Your task to perform on an android device: Open Chrome and go to settings Image 0: 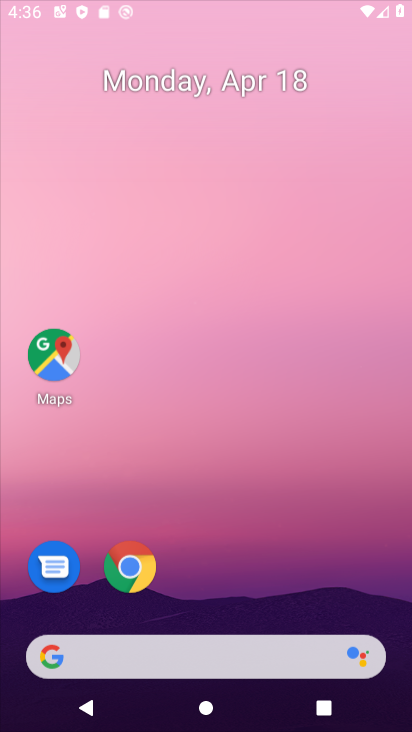
Step 0: press home button
Your task to perform on an android device: Open Chrome and go to settings Image 1: 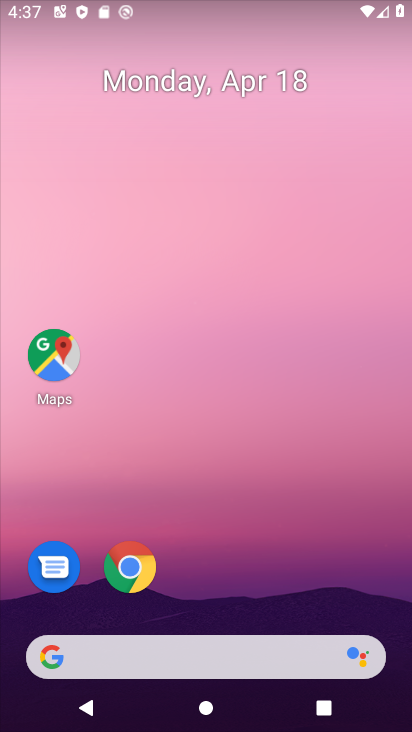
Step 1: click (135, 575)
Your task to perform on an android device: Open Chrome and go to settings Image 2: 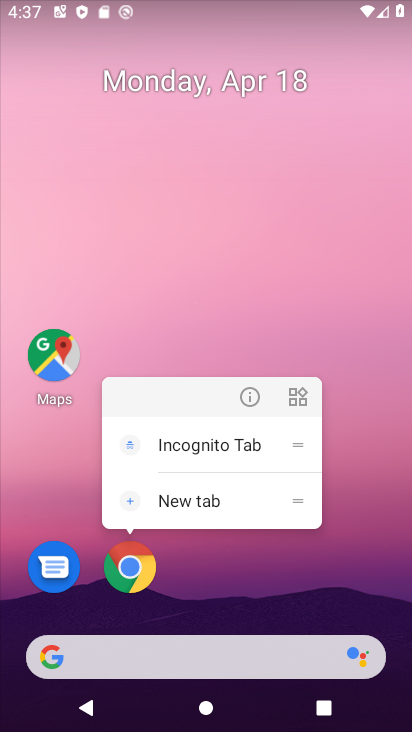
Step 2: click (135, 575)
Your task to perform on an android device: Open Chrome and go to settings Image 3: 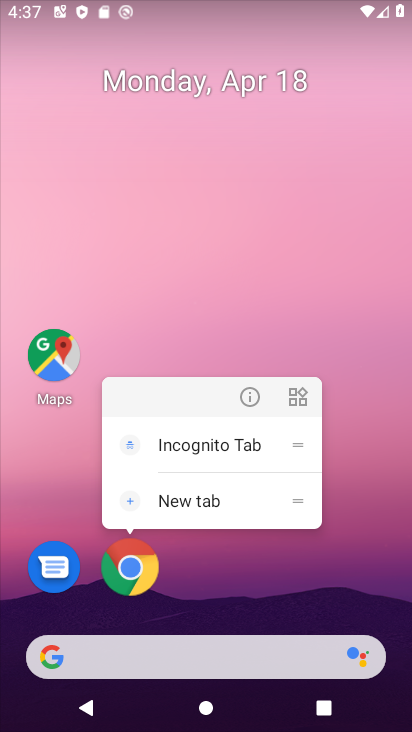
Step 3: click (135, 575)
Your task to perform on an android device: Open Chrome and go to settings Image 4: 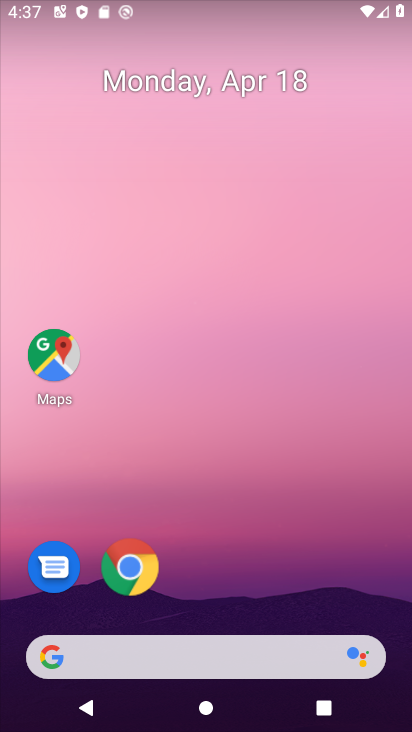
Step 4: click (135, 575)
Your task to perform on an android device: Open Chrome and go to settings Image 5: 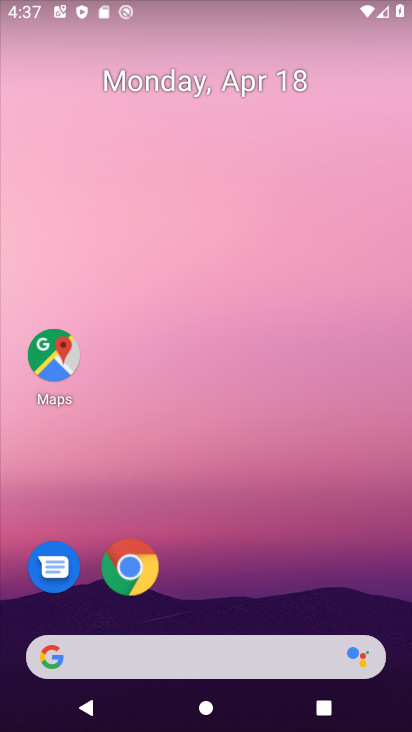
Step 5: click (135, 575)
Your task to perform on an android device: Open Chrome and go to settings Image 6: 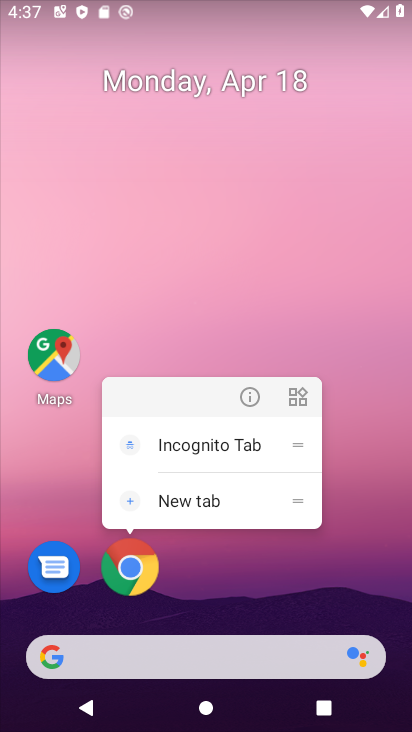
Step 6: click (135, 575)
Your task to perform on an android device: Open Chrome and go to settings Image 7: 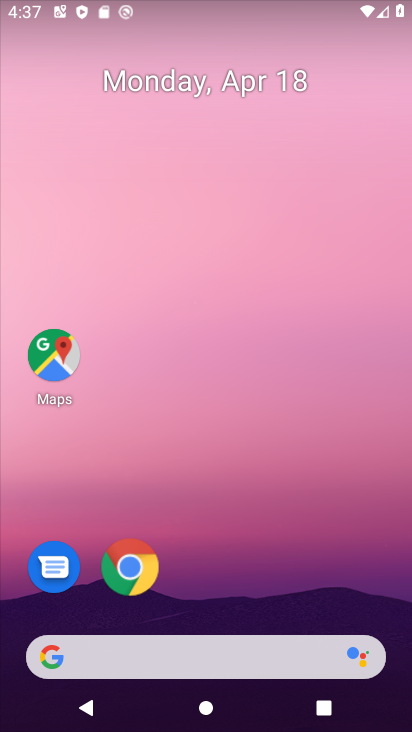
Step 7: click (135, 575)
Your task to perform on an android device: Open Chrome and go to settings Image 8: 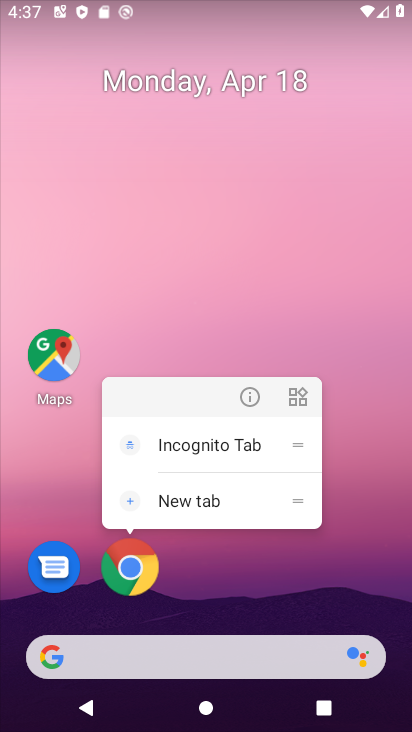
Step 8: click (135, 575)
Your task to perform on an android device: Open Chrome and go to settings Image 9: 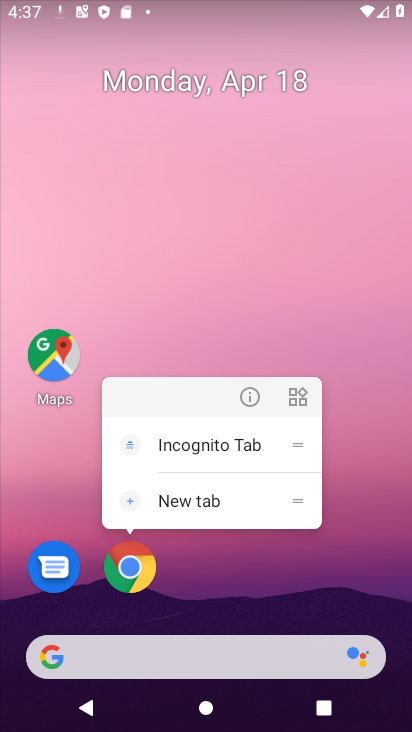
Step 9: click (135, 575)
Your task to perform on an android device: Open Chrome and go to settings Image 10: 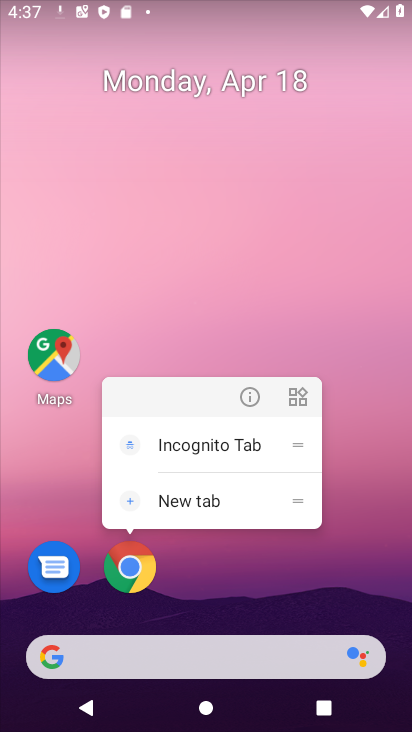
Step 10: click (135, 575)
Your task to perform on an android device: Open Chrome and go to settings Image 11: 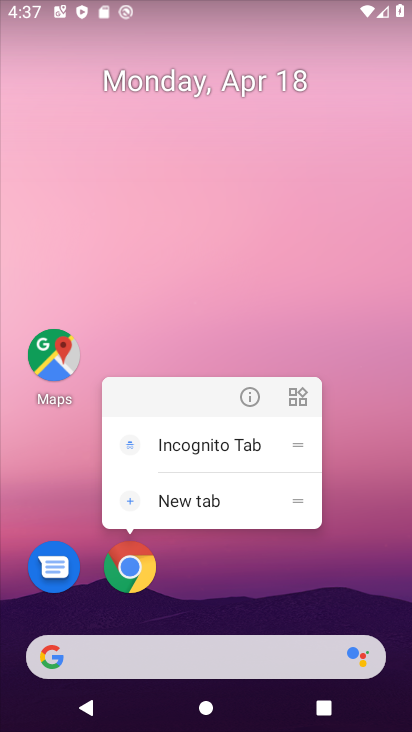
Step 11: click (135, 575)
Your task to perform on an android device: Open Chrome and go to settings Image 12: 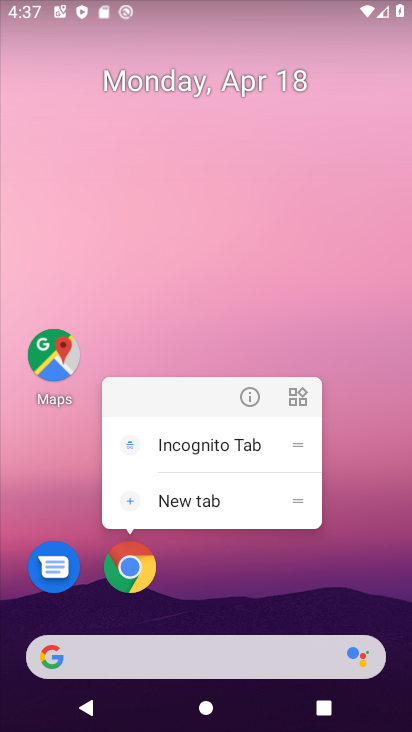
Step 12: click (135, 575)
Your task to perform on an android device: Open Chrome and go to settings Image 13: 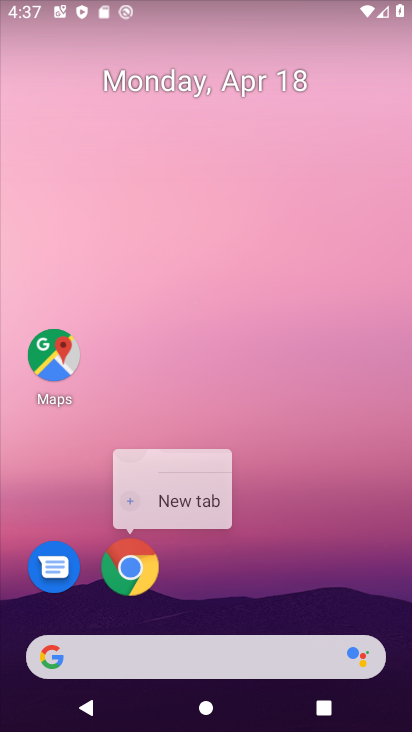
Step 13: click (135, 575)
Your task to perform on an android device: Open Chrome and go to settings Image 14: 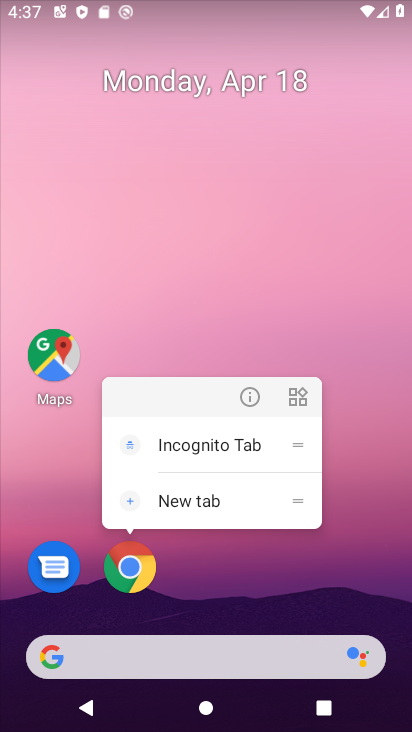
Step 14: click (135, 575)
Your task to perform on an android device: Open Chrome and go to settings Image 15: 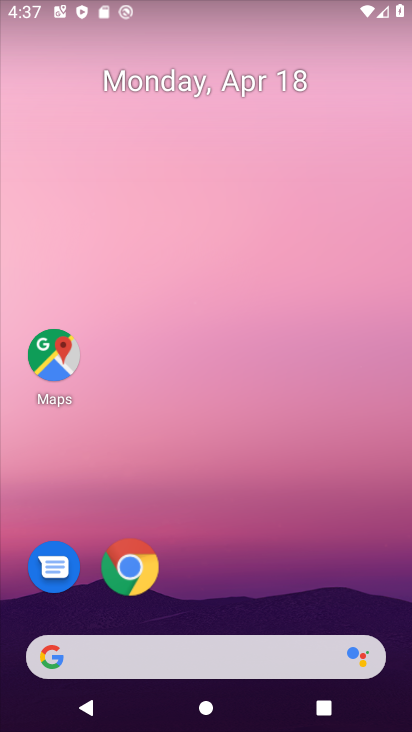
Step 15: click (134, 575)
Your task to perform on an android device: Open Chrome and go to settings Image 16: 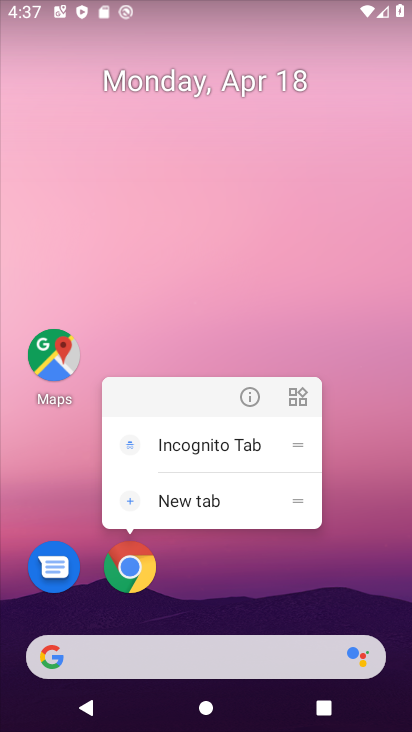
Step 16: click (134, 575)
Your task to perform on an android device: Open Chrome and go to settings Image 17: 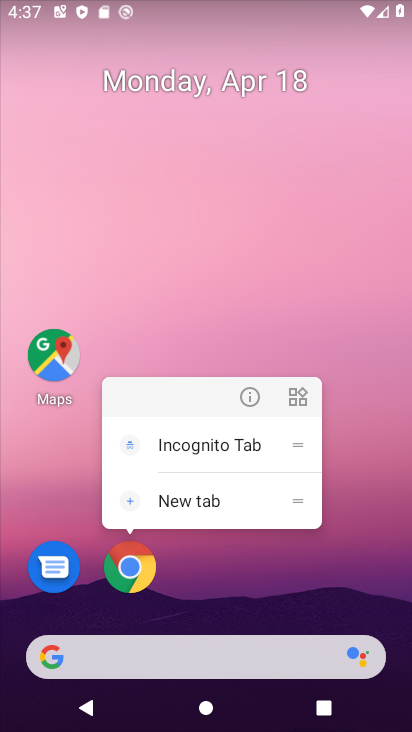
Step 17: click (134, 575)
Your task to perform on an android device: Open Chrome and go to settings Image 18: 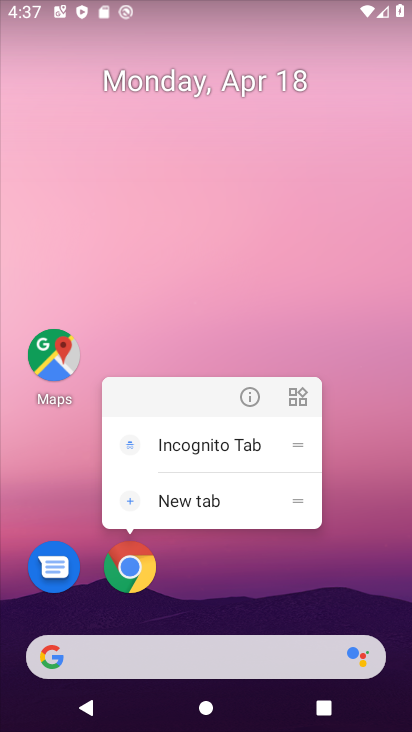
Step 18: click (134, 575)
Your task to perform on an android device: Open Chrome and go to settings Image 19: 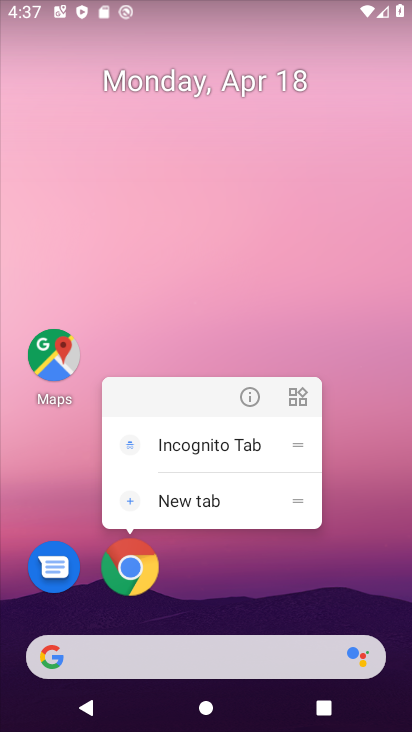
Step 19: click (134, 575)
Your task to perform on an android device: Open Chrome and go to settings Image 20: 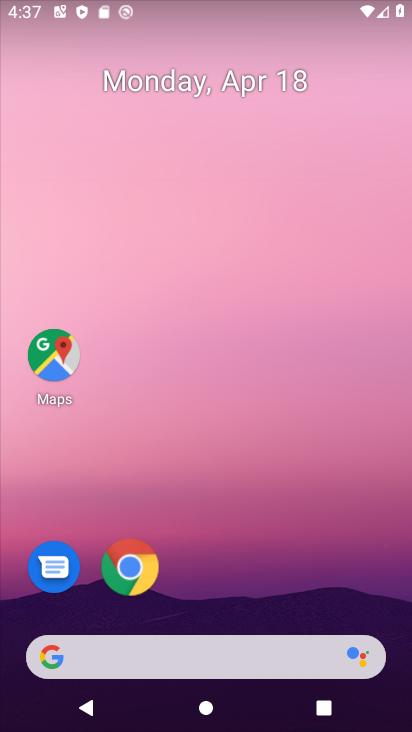
Step 20: click (134, 575)
Your task to perform on an android device: Open Chrome and go to settings Image 21: 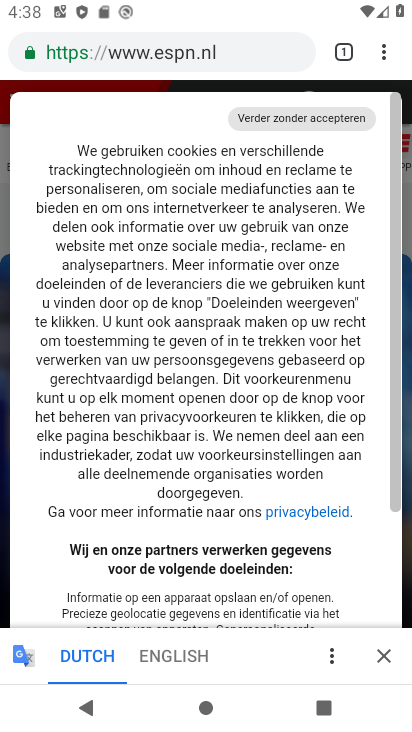
Step 21: click (134, 575)
Your task to perform on an android device: Open Chrome and go to settings Image 22: 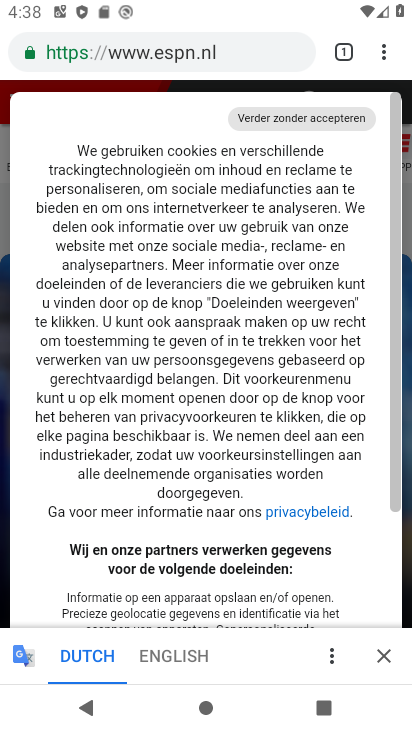
Step 22: click (134, 575)
Your task to perform on an android device: Open Chrome and go to settings Image 23: 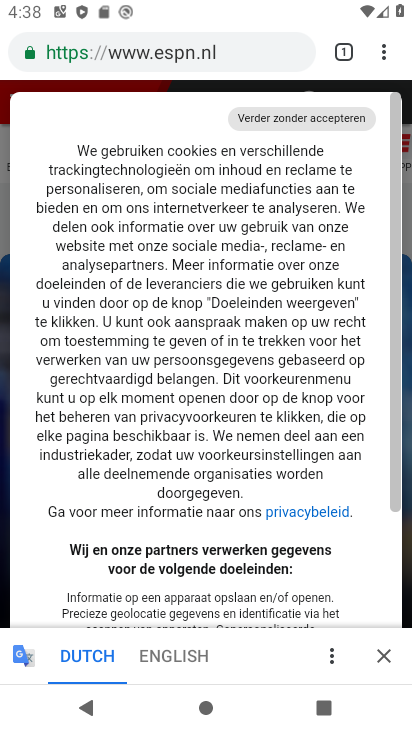
Step 23: click (388, 54)
Your task to perform on an android device: Open Chrome and go to settings Image 24: 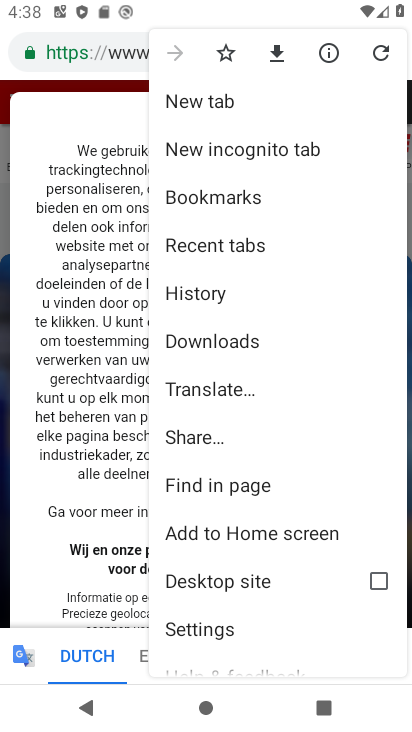
Step 24: click (206, 631)
Your task to perform on an android device: Open Chrome and go to settings Image 25: 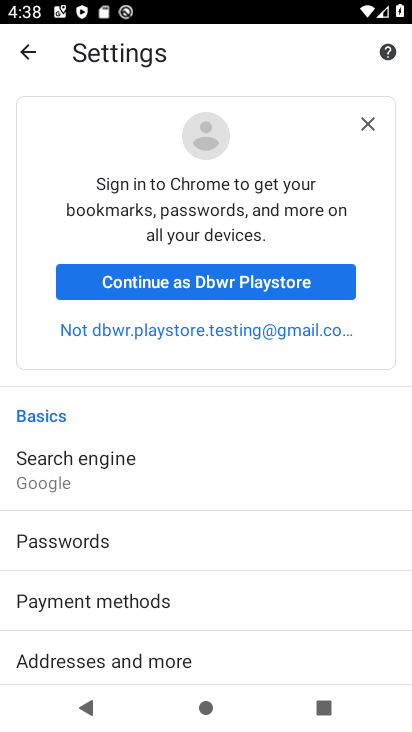
Step 25: task complete